Your task to perform on an android device: Open Google Image 0: 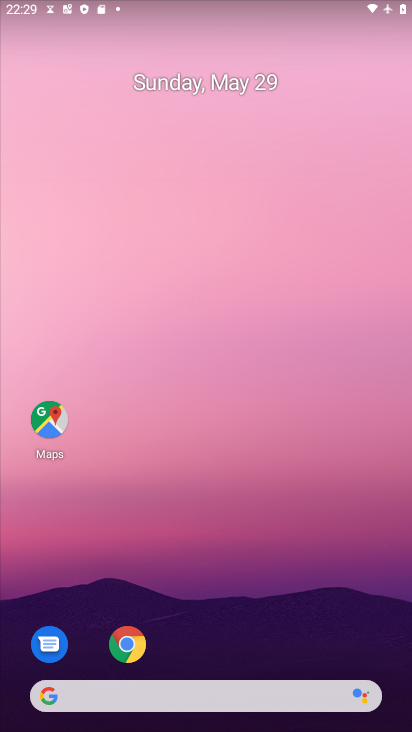
Step 0: drag from (239, 644) to (232, 409)
Your task to perform on an android device: Open Google Image 1: 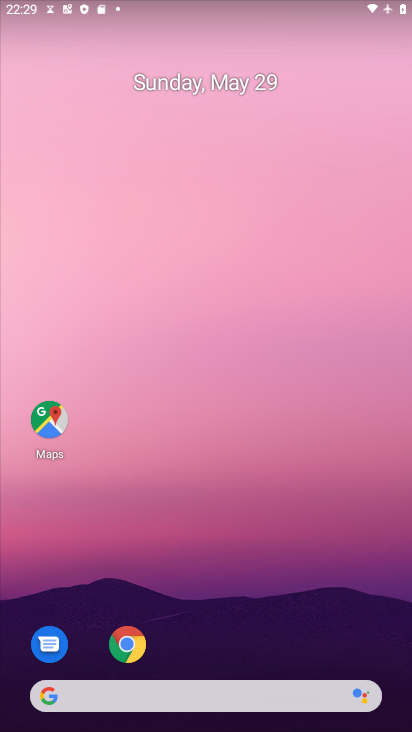
Step 1: drag from (240, 536) to (242, 315)
Your task to perform on an android device: Open Google Image 2: 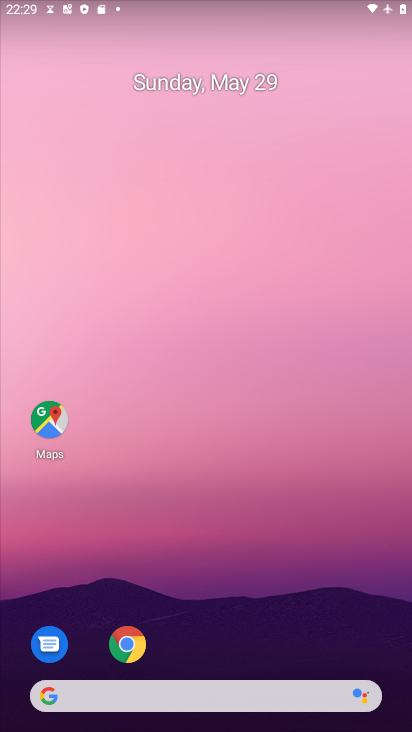
Step 2: drag from (206, 554) to (179, 176)
Your task to perform on an android device: Open Google Image 3: 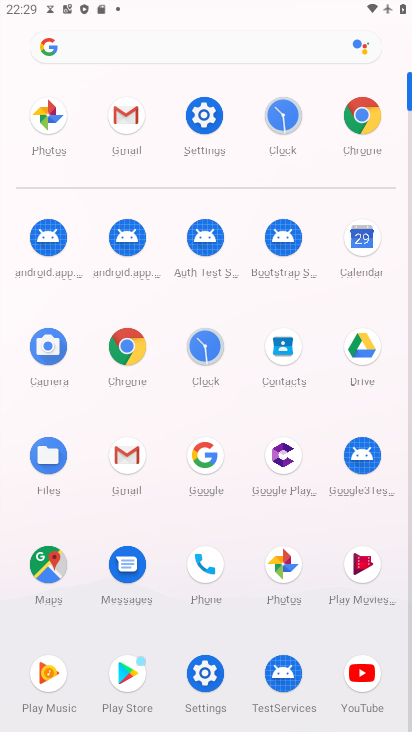
Step 3: click (211, 454)
Your task to perform on an android device: Open Google Image 4: 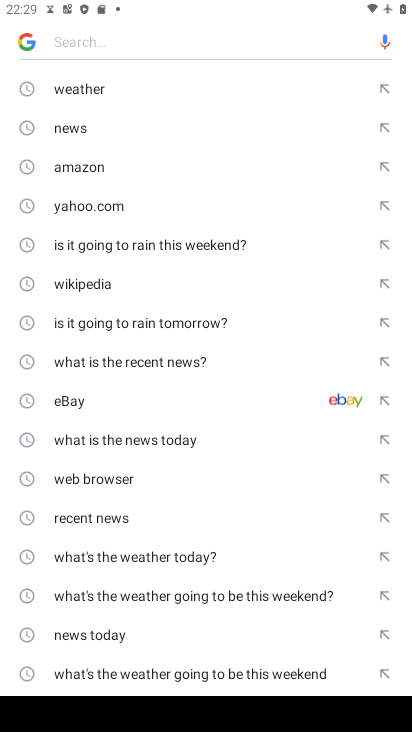
Step 4: task complete